Your task to perform on an android device: Go to Reddit.com Image 0: 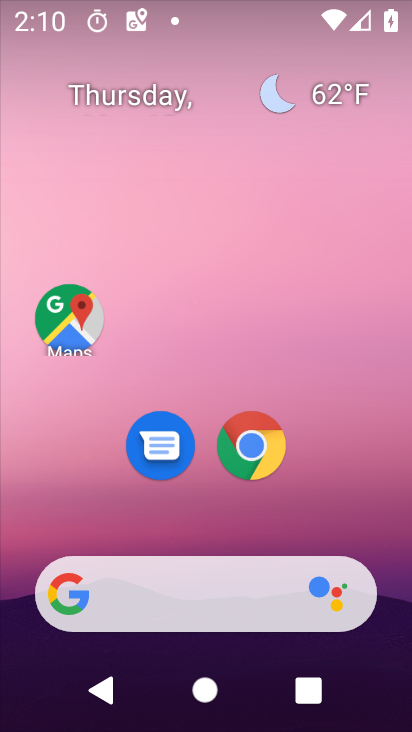
Step 0: click (272, 458)
Your task to perform on an android device: Go to Reddit.com Image 1: 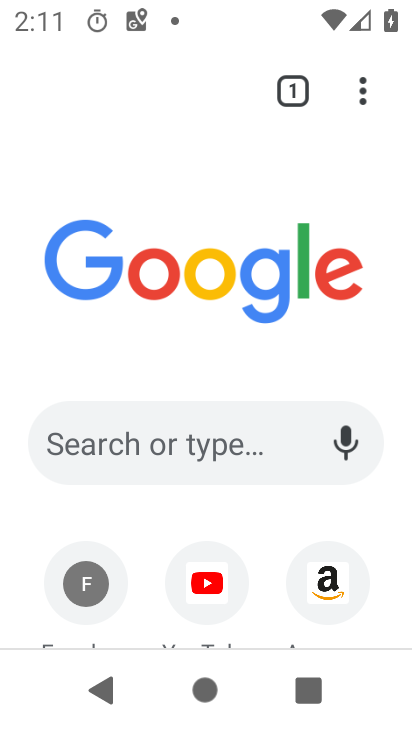
Step 1: click (204, 441)
Your task to perform on an android device: Go to Reddit.com Image 2: 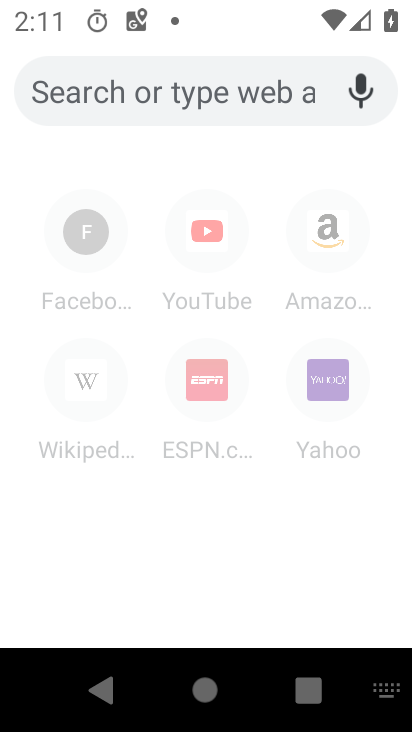
Step 2: type "reddit.com"
Your task to perform on an android device: Go to Reddit.com Image 3: 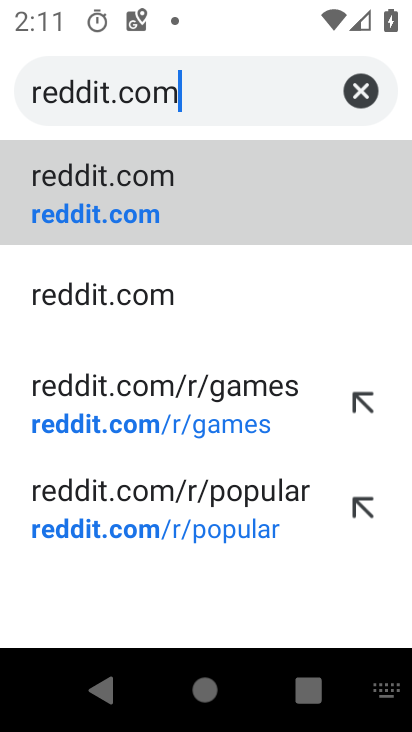
Step 3: click (286, 213)
Your task to perform on an android device: Go to Reddit.com Image 4: 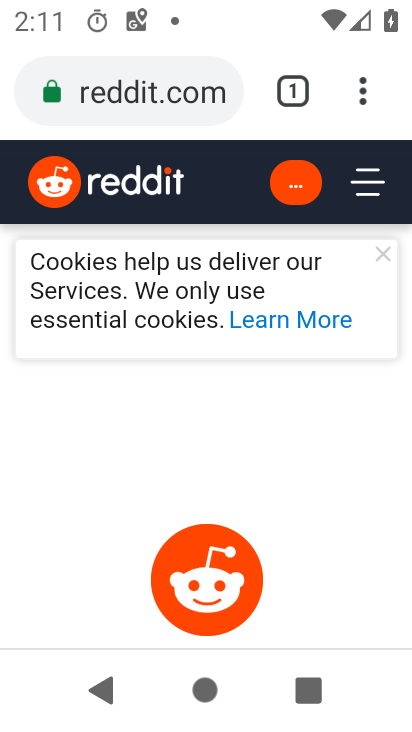
Step 4: task complete